Your task to perform on an android device: Search for Mexican restaurants on Maps Image 0: 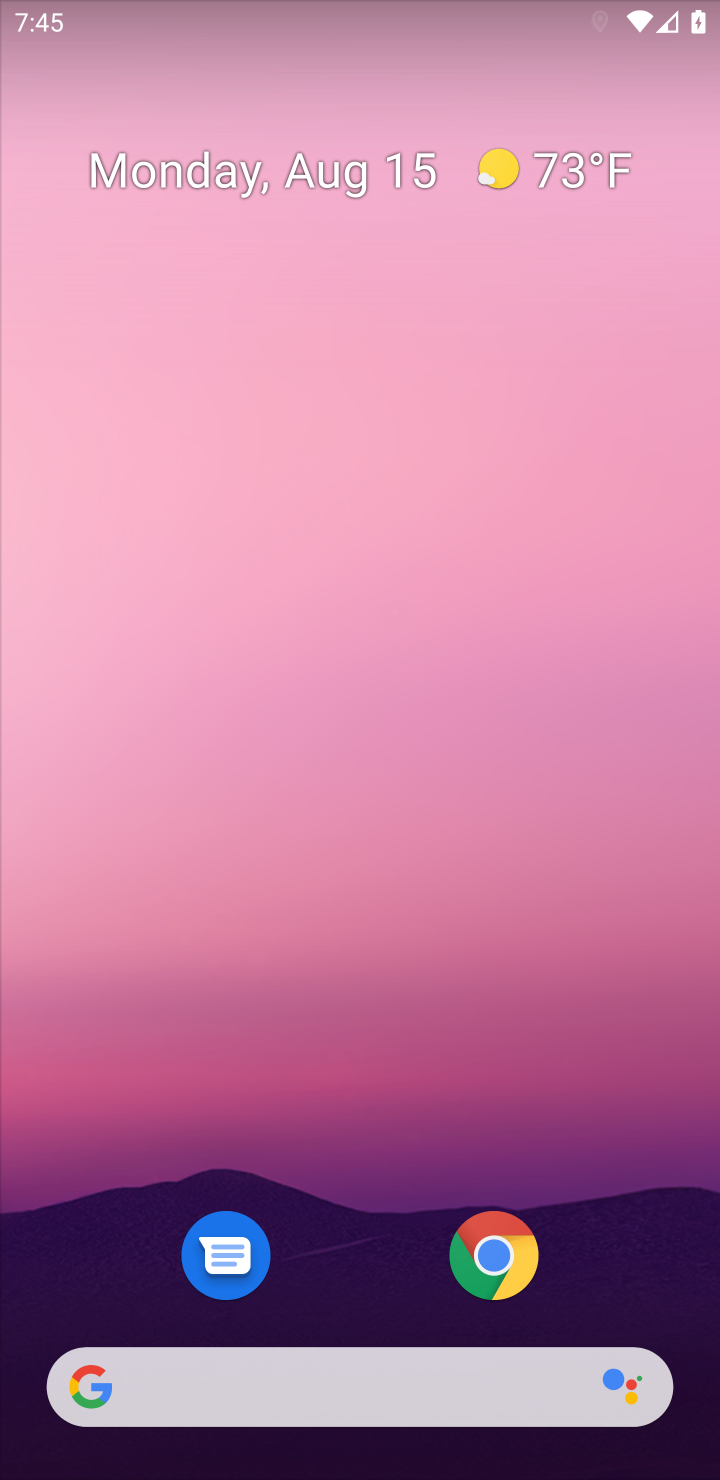
Step 0: press home button
Your task to perform on an android device: Search for Mexican restaurants on Maps Image 1: 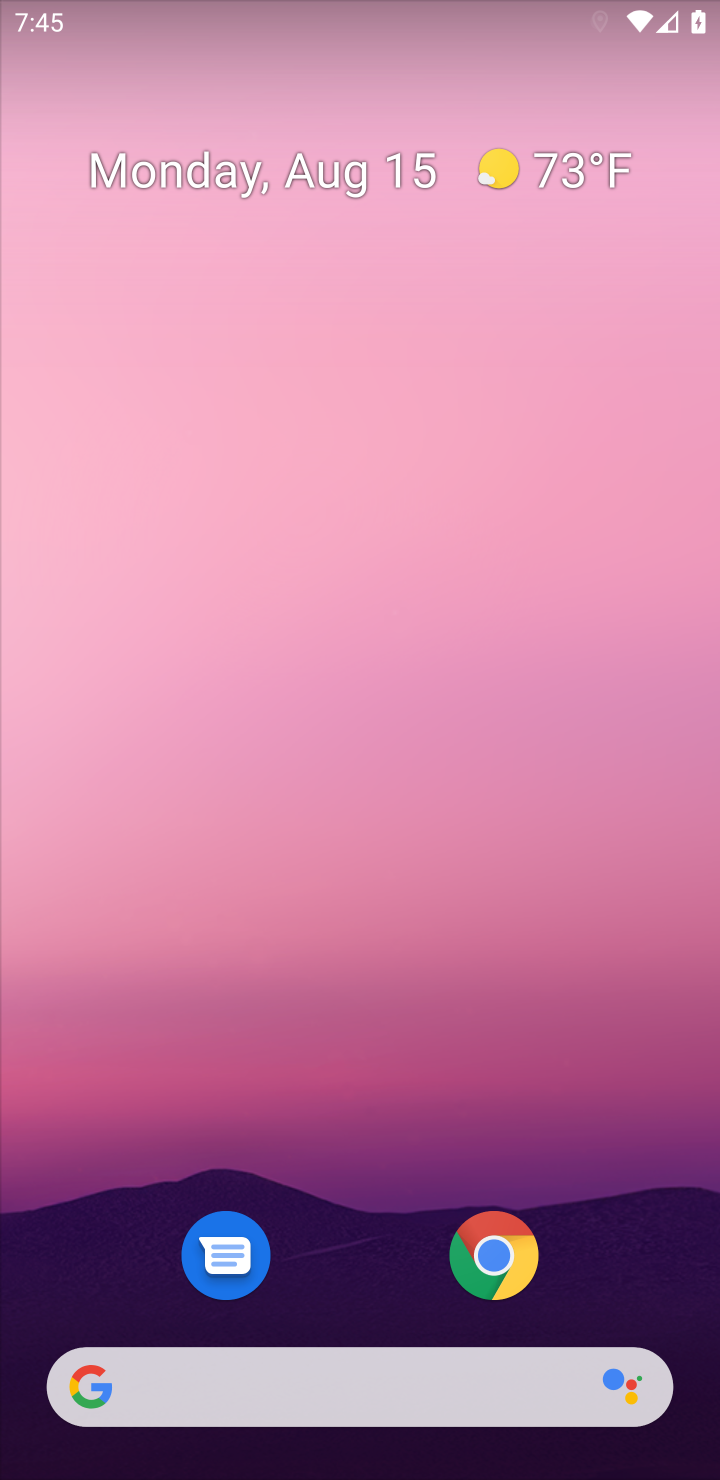
Step 1: drag from (349, 1311) to (311, 62)
Your task to perform on an android device: Search for Mexican restaurants on Maps Image 2: 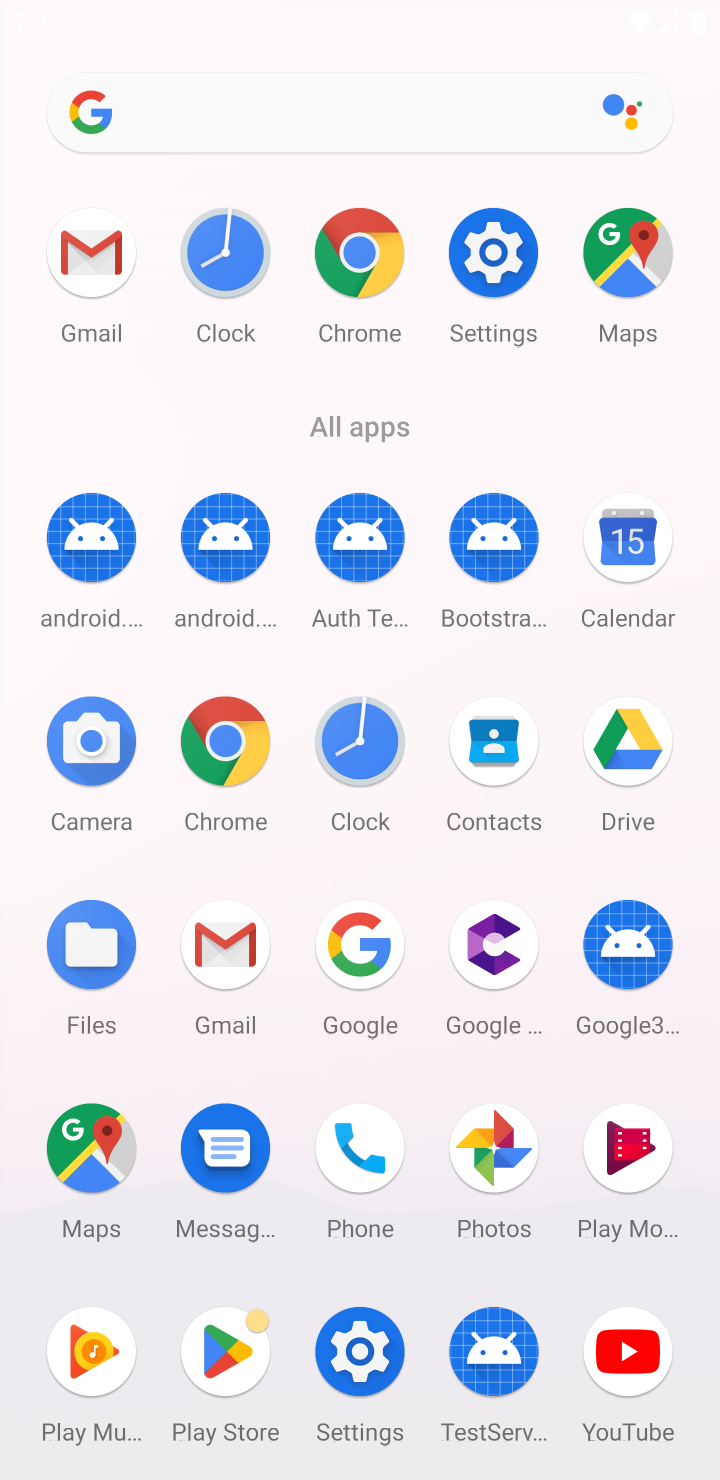
Step 2: click (631, 247)
Your task to perform on an android device: Search for Mexican restaurants on Maps Image 3: 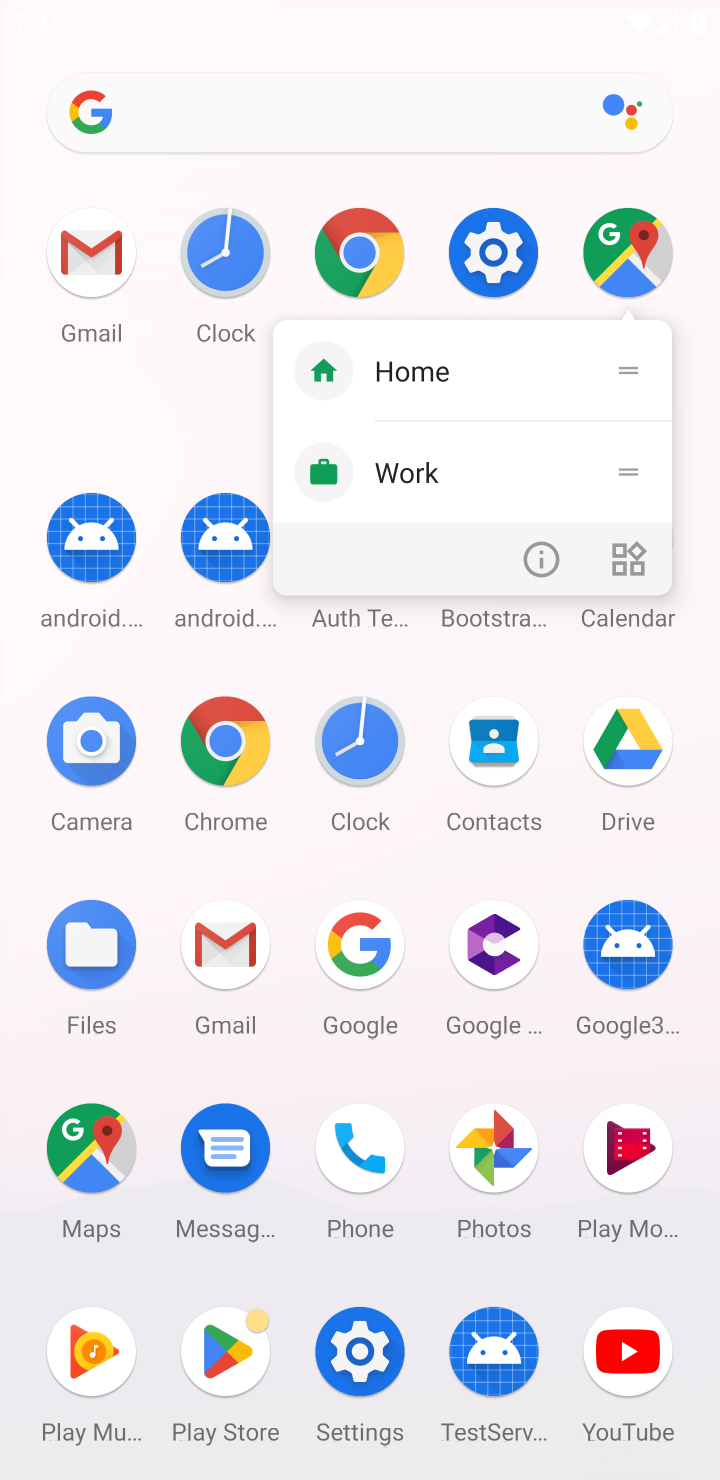
Step 3: click (631, 247)
Your task to perform on an android device: Search for Mexican restaurants on Maps Image 4: 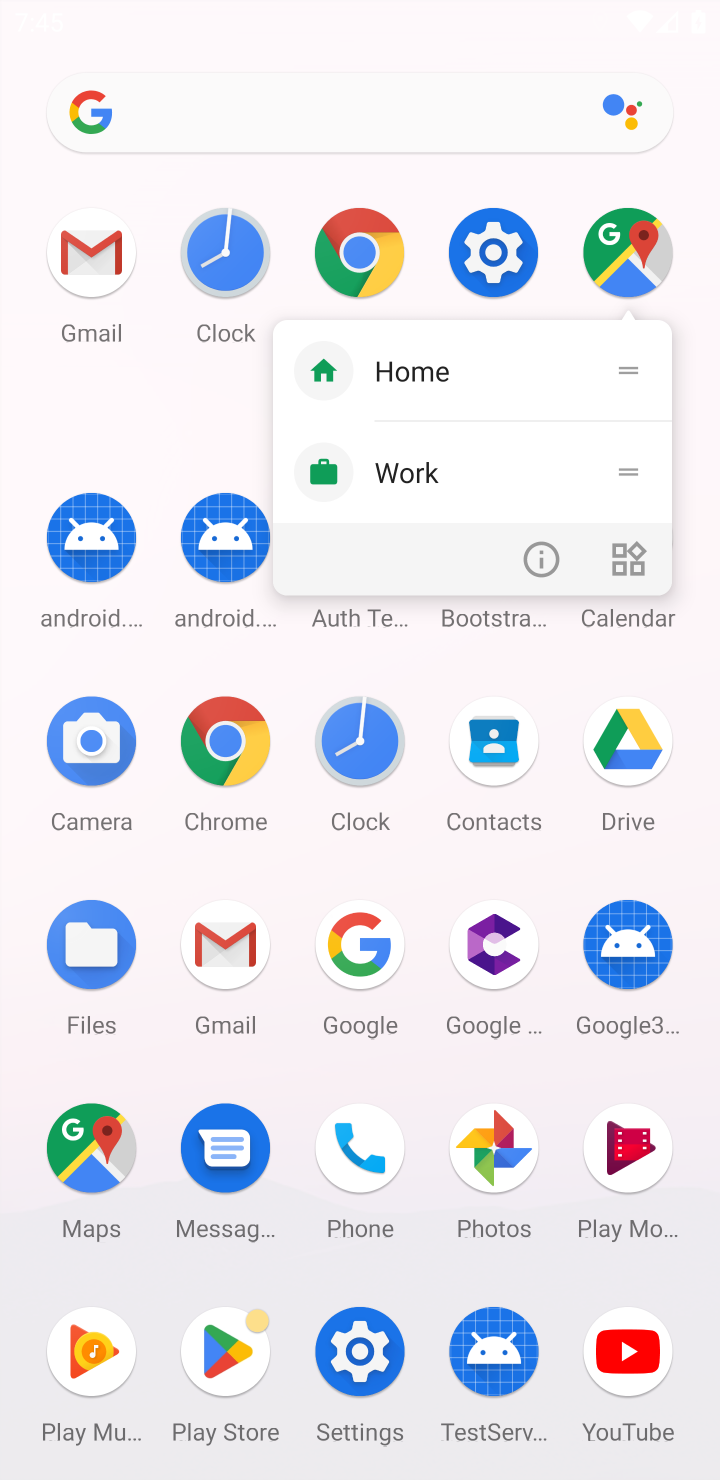
Step 4: click (631, 247)
Your task to perform on an android device: Search for Mexican restaurants on Maps Image 5: 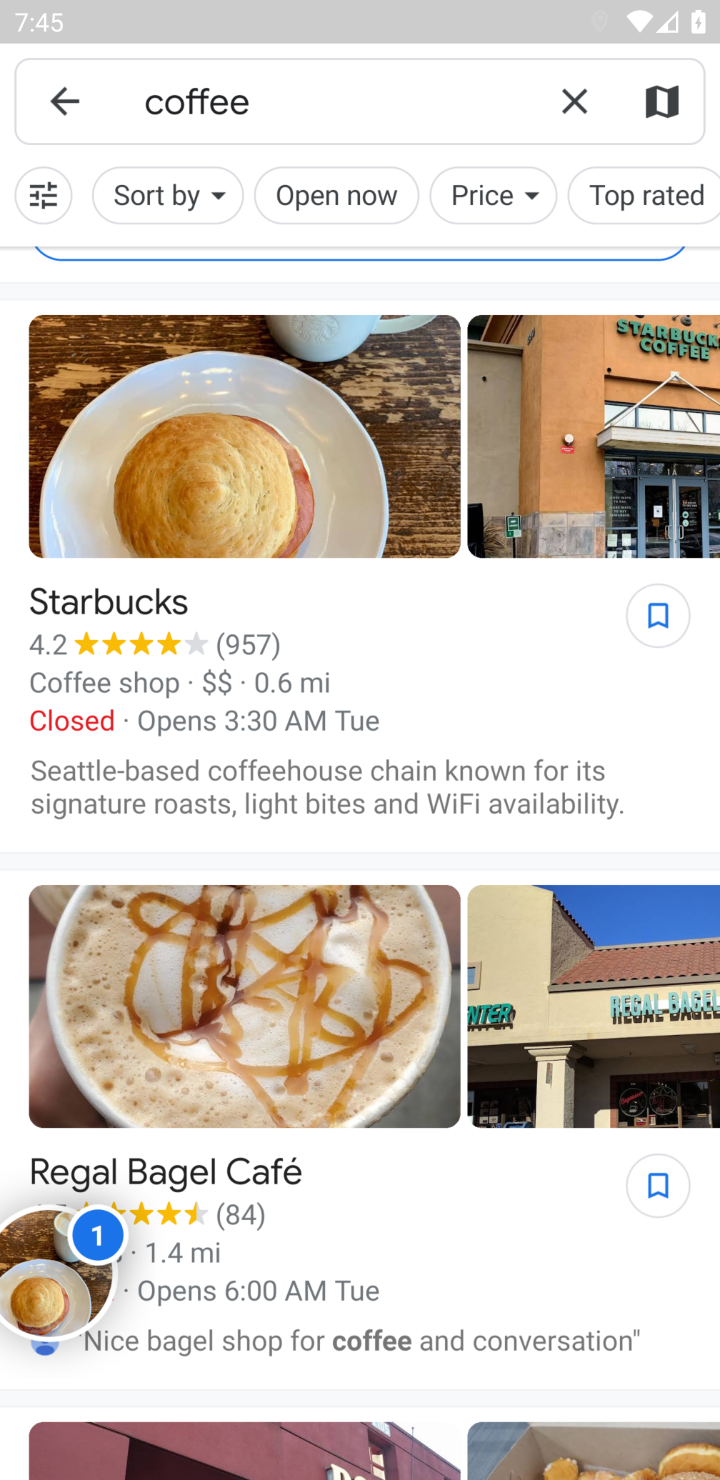
Step 5: click (564, 104)
Your task to perform on an android device: Search for Mexican restaurants on Maps Image 6: 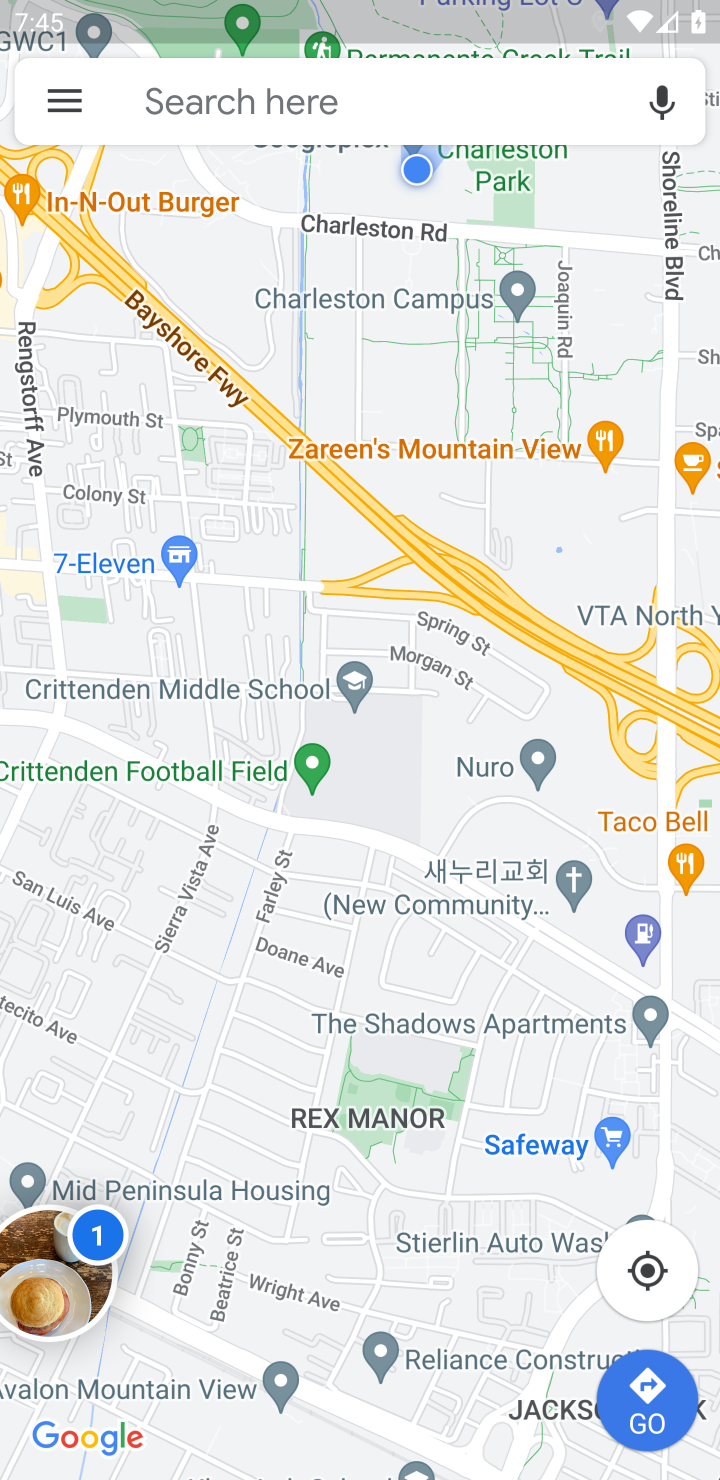
Step 6: click (255, 91)
Your task to perform on an android device: Search for Mexican restaurants on Maps Image 7: 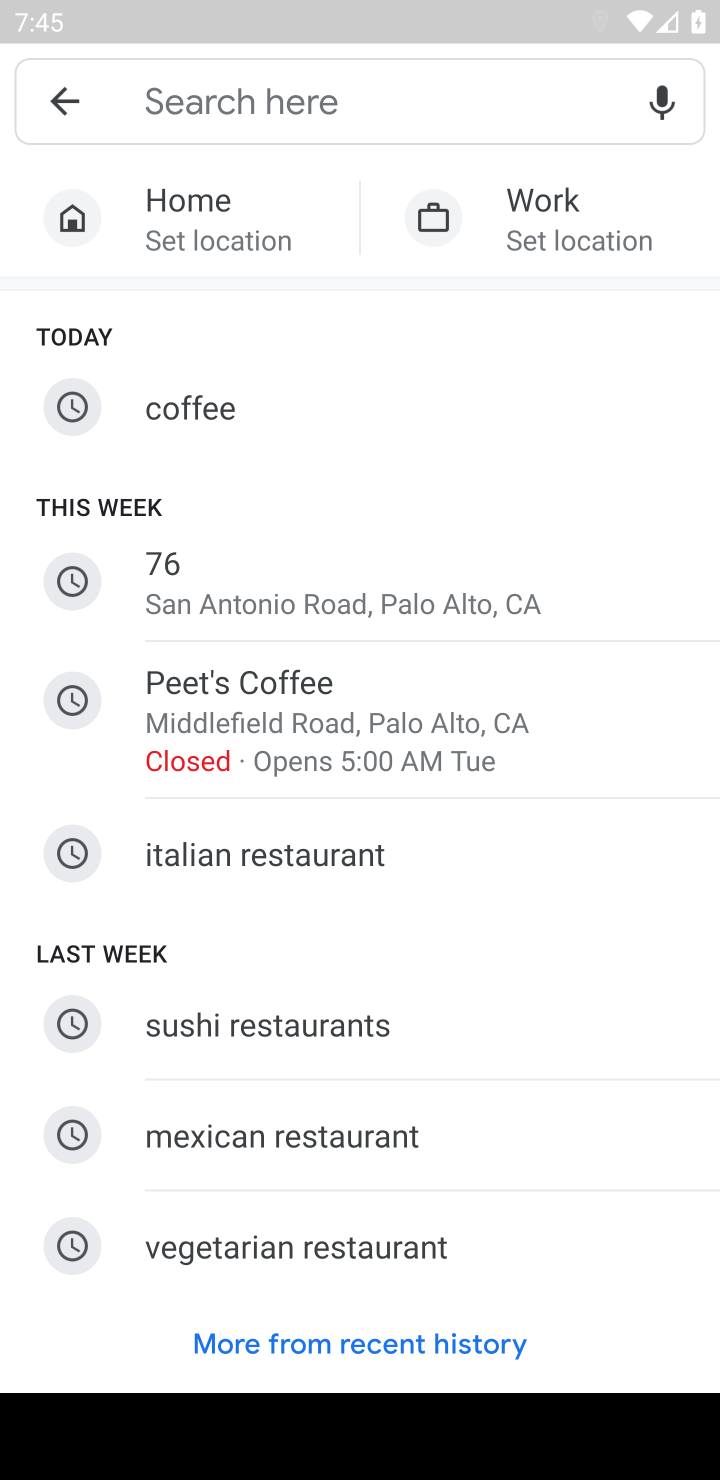
Step 7: click (261, 1140)
Your task to perform on an android device: Search for Mexican restaurants on Maps Image 8: 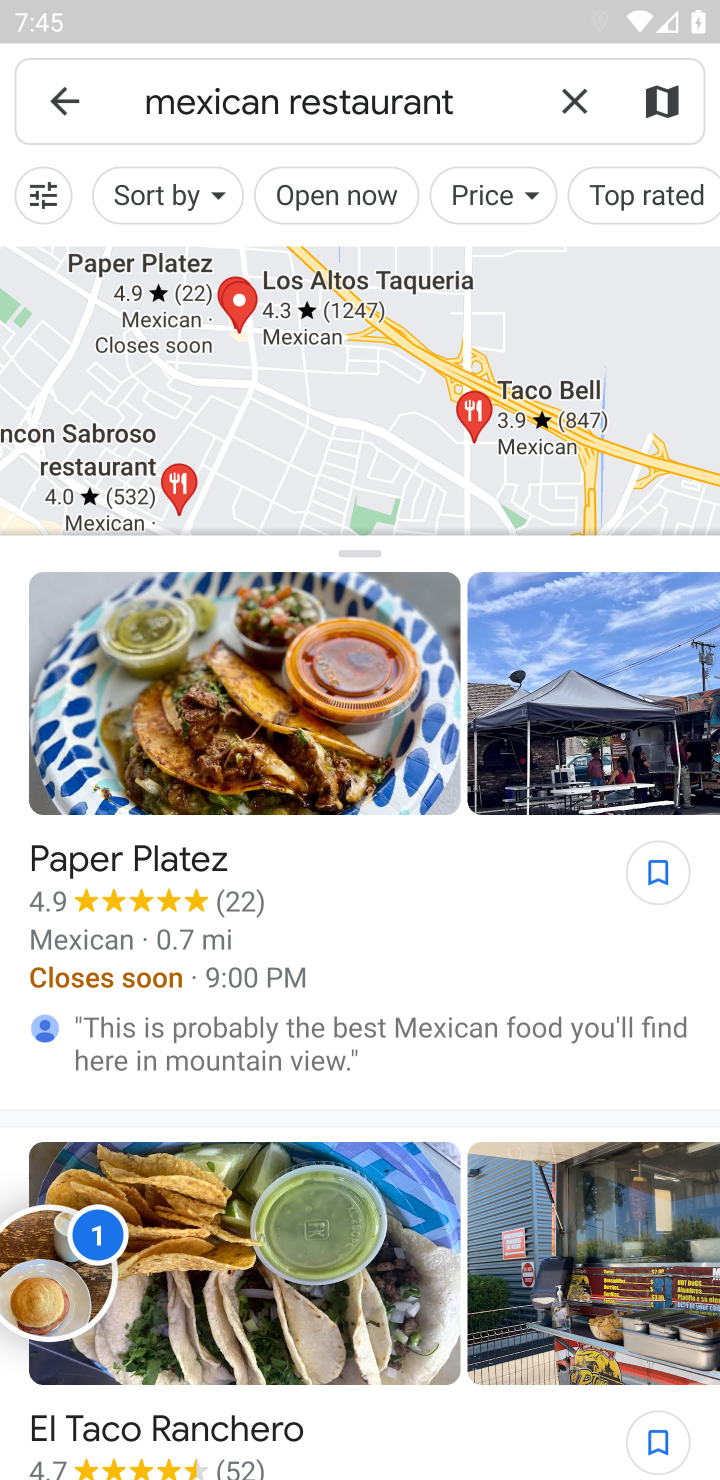
Step 8: task complete